Your task to perform on an android device: Go to Yahoo.com Image 0: 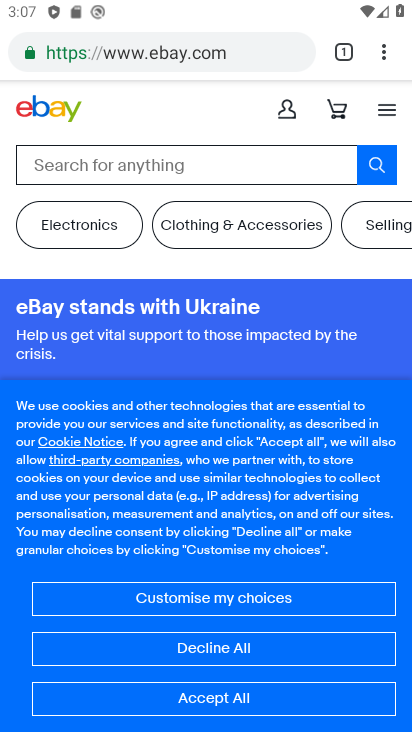
Step 0: press home button
Your task to perform on an android device: Go to Yahoo.com Image 1: 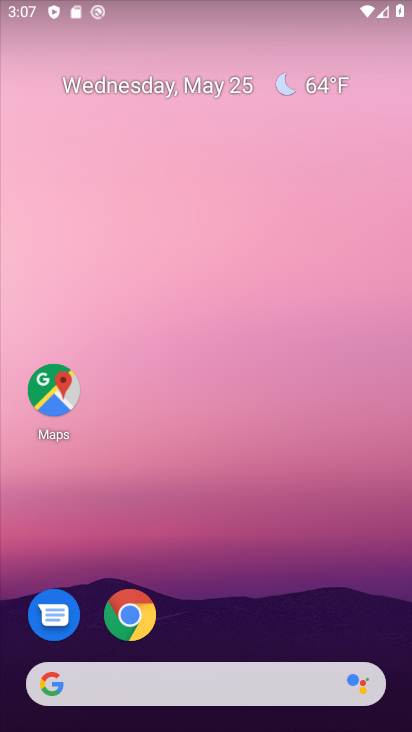
Step 1: click (142, 611)
Your task to perform on an android device: Go to Yahoo.com Image 2: 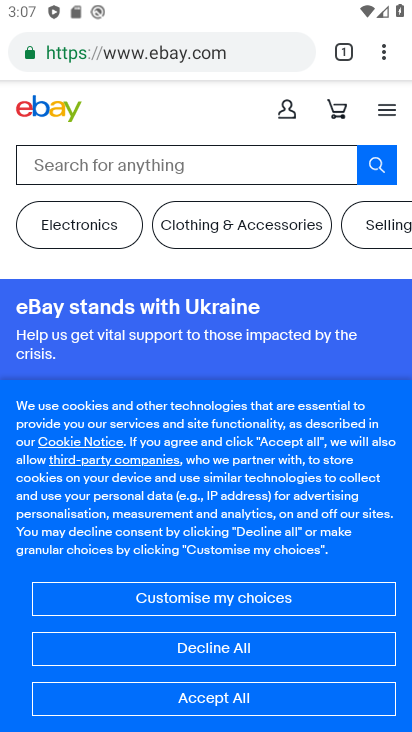
Step 2: click (159, 56)
Your task to perform on an android device: Go to Yahoo.com Image 3: 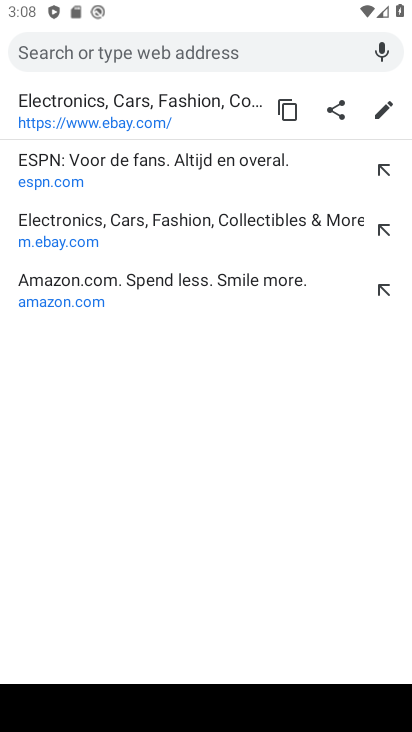
Step 3: type "yahoo.com"
Your task to perform on an android device: Go to Yahoo.com Image 4: 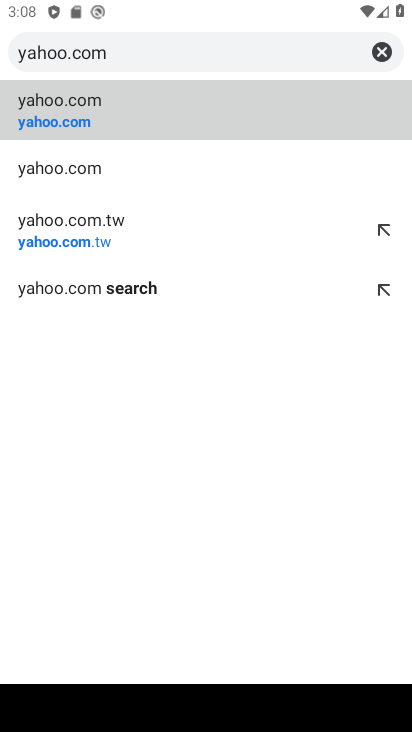
Step 4: click (79, 101)
Your task to perform on an android device: Go to Yahoo.com Image 5: 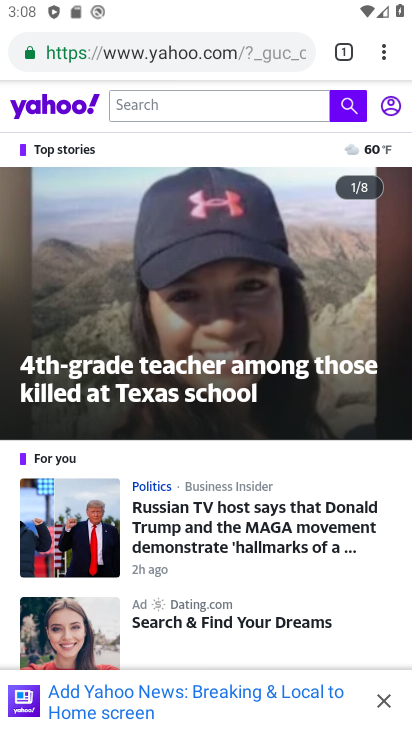
Step 5: task complete